Your task to perform on an android device: check storage Image 0: 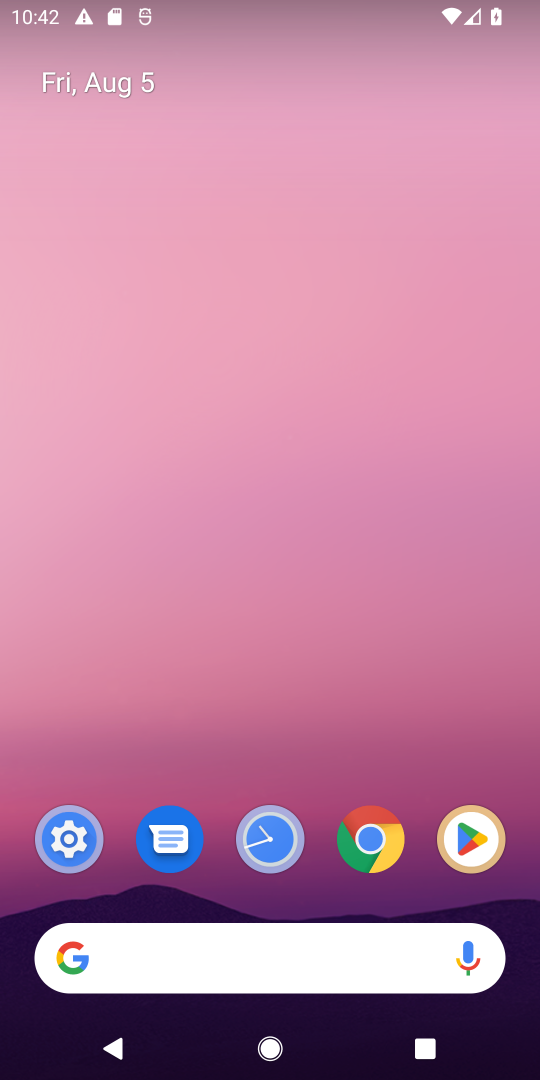
Step 0: press home button
Your task to perform on an android device: check storage Image 1: 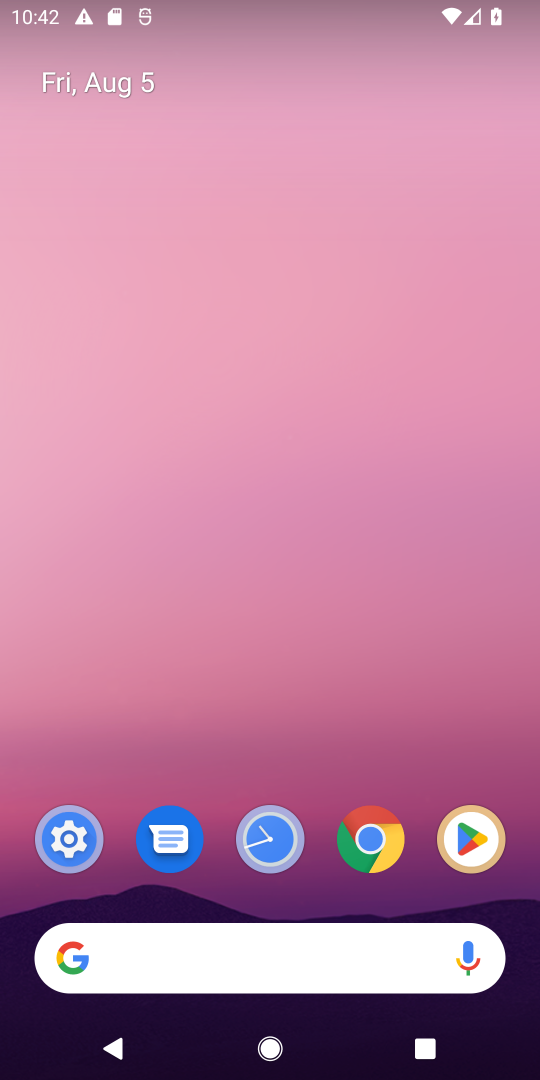
Step 1: drag from (312, 801) to (317, 0)
Your task to perform on an android device: check storage Image 2: 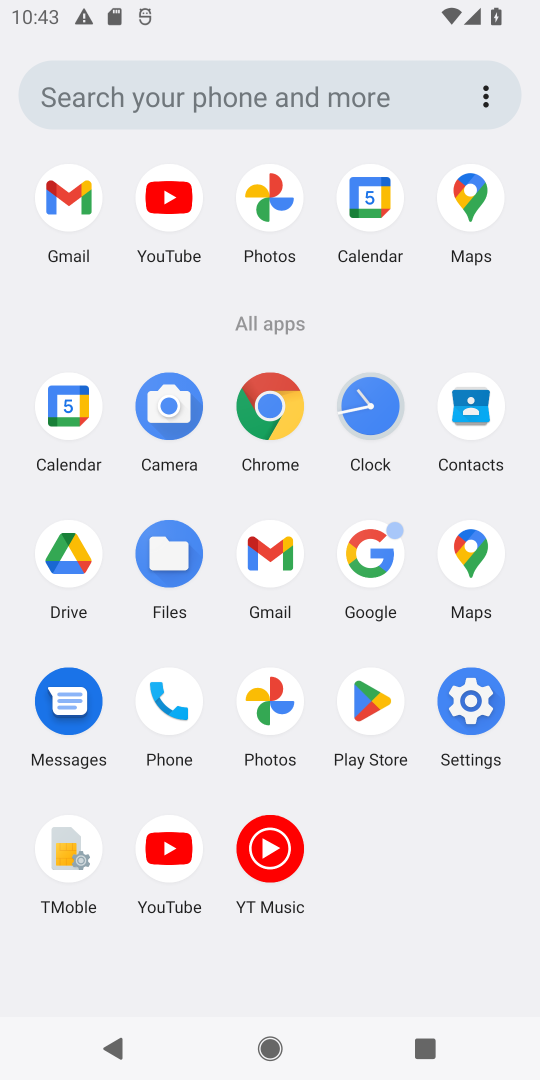
Step 2: click (467, 697)
Your task to perform on an android device: check storage Image 3: 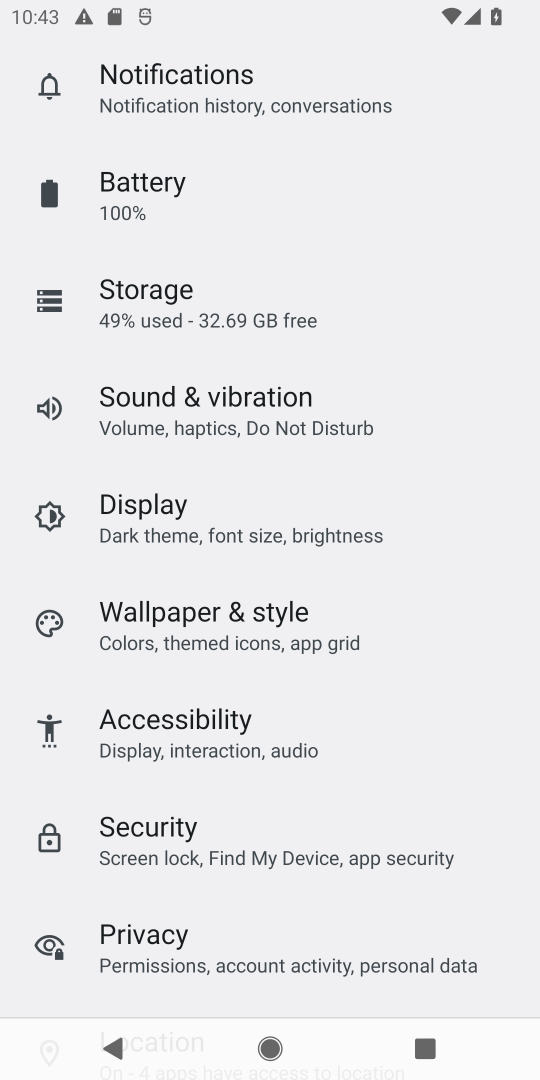
Step 3: click (218, 283)
Your task to perform on an android device: check storage Image 4: 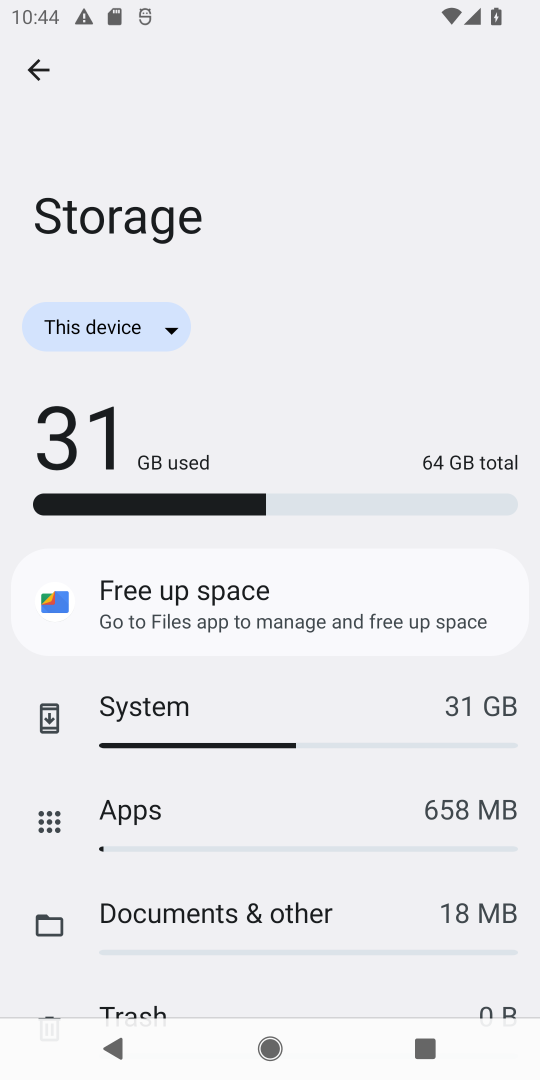
Step 4: task complete